Your task to perform on an android device: make emails show in primary in the gmail app Image 0: 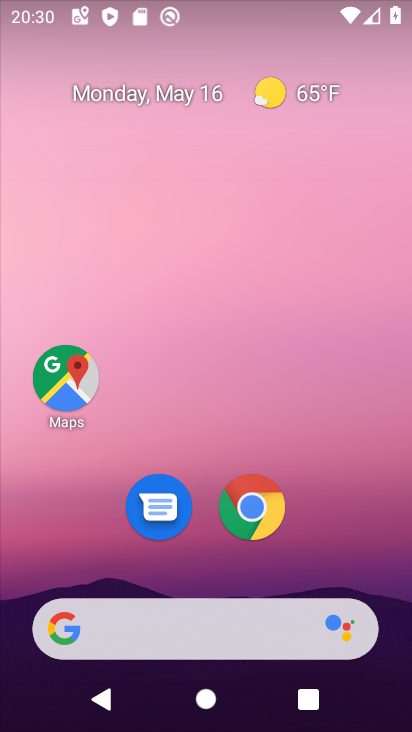
Step 0: drag from (188, 569) to (228, 10)
Your task to perform on an android device: make emails show in primary in the gmail app Image 1: 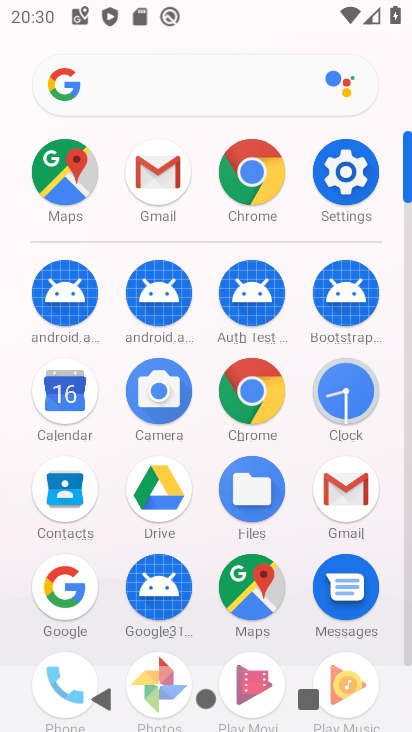
Step 1: click (342, 518)
Your task to perform on an android device: make emails show in primary in the gmail app Image 2: 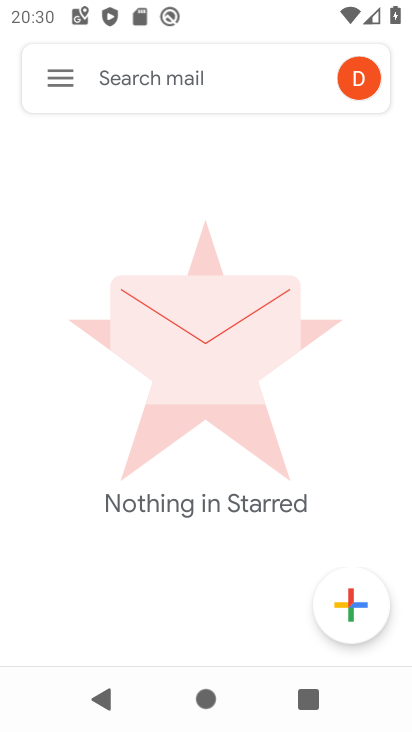
Step 2: click (49, 80)
Your task to perform on an android device: make emails show in primary in the gmail app Image 3: 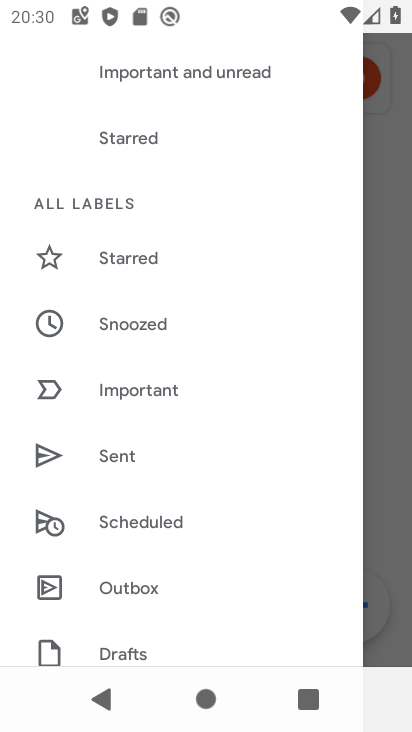
Step 3: drag from (137, 471) to (377, 9)
Your task to perform on an android device: make emails show in primary in the gmail app Image 4: 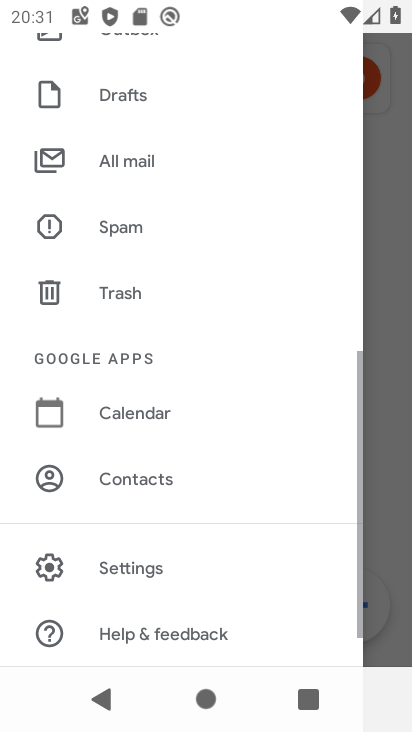
Step 4: click (84, 589)
Your task to perform on an android device: make emails show in primary in the gmail app Image 5: 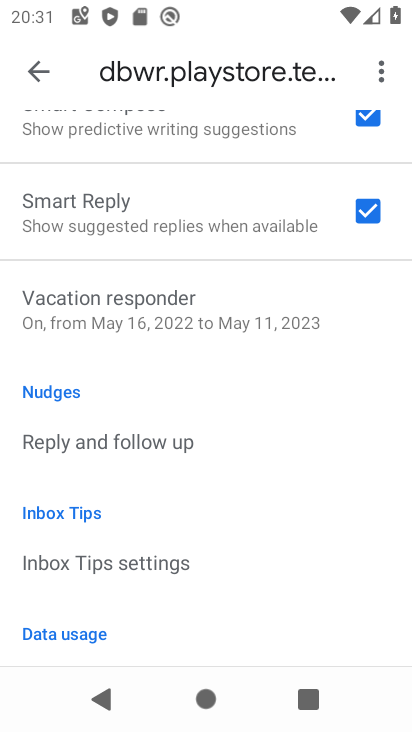
Step 5: drag from (161, 331) to (153, 724)
Your task to perform on an android device: make emails show in primary in the gmail app Image 6: 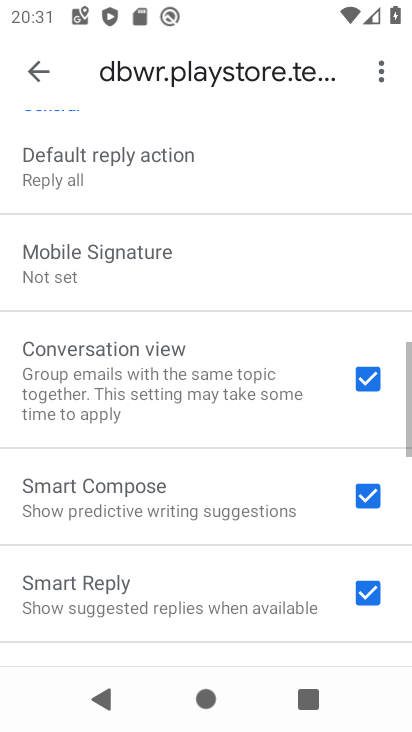
Step 6: click (37, 76)
Your task to perform on an android device: make emails show in primary in the gmail app Image 7: 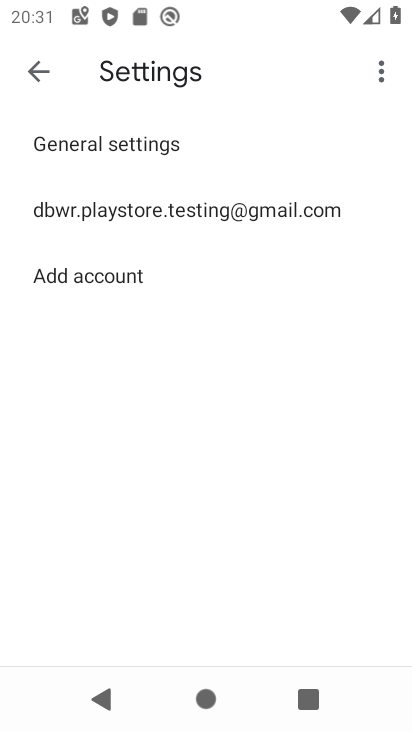
Step 7: click (129, 227)
Your task to perform on an android device: make emails show in primary in the gmail app Image 8: 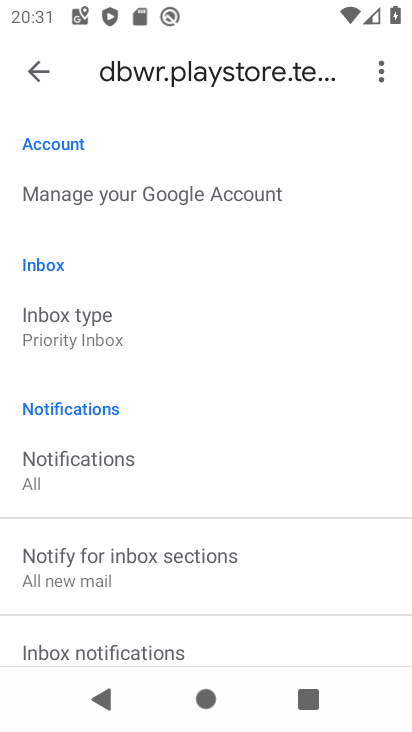
Step 8: click (81, 317)
Your task to perform on an android device: make emails show in primary in the gmail app Image 9: 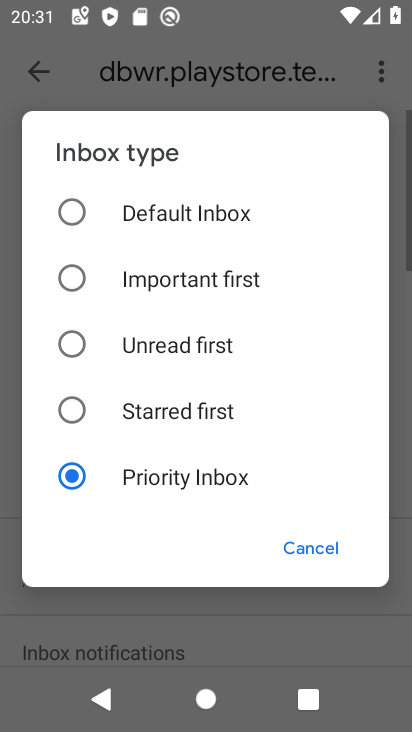
Step 9: click (122, 219)
Your task to perform on an android device: make emails show in primary in the gmail app Image 10: 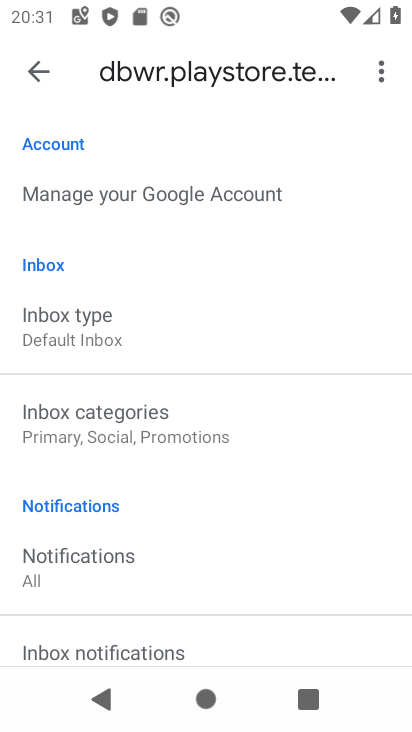
Step 10: click (16, 56)
Your task to perform on an android device: make emails show in primary in the gmail app Image 11: 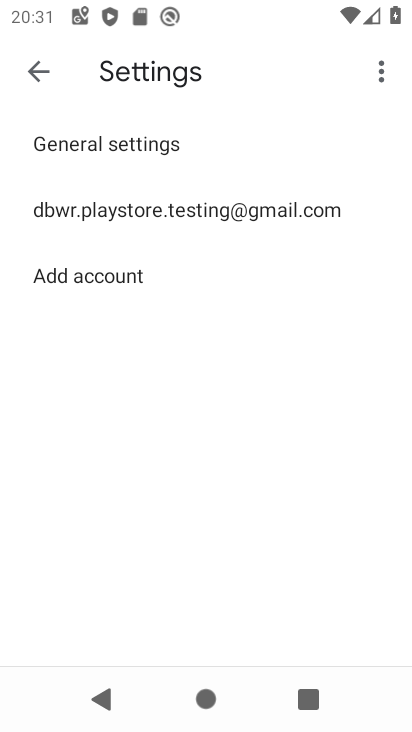
Step 11: click (28, 67)
Your task to perform on an android device: make emails show in primary in the gmail app Image 12: 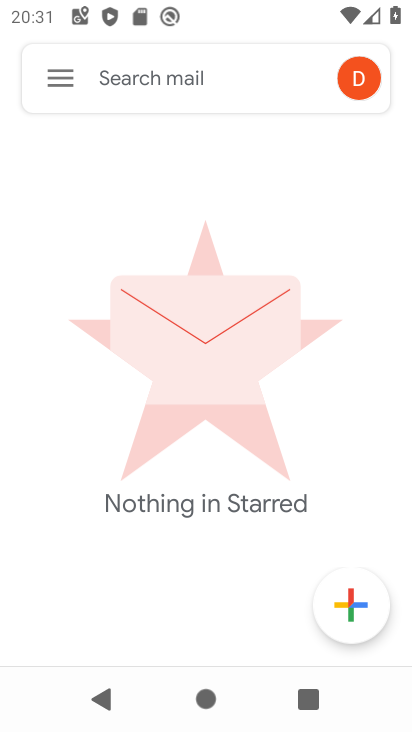
Step 12: drag from (228, 259) to (203, 687)
Your task to perform on an android device: make emails show in primary in the gmail app Image 13: 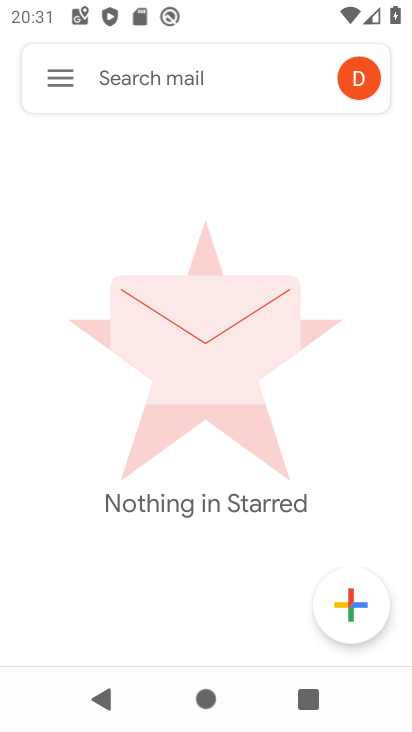
Step 13: click (59, 70)
Your task to perform on an android device: make emails show in primary in the gmail app Image 14: 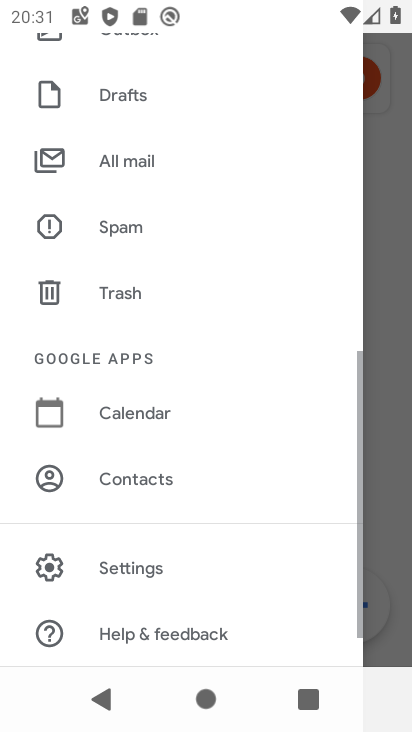
Step 14: drag from (145, 113) to (134, 731)
Your task to perform on an android device: make emails show in primary in the gmail app Image 15: 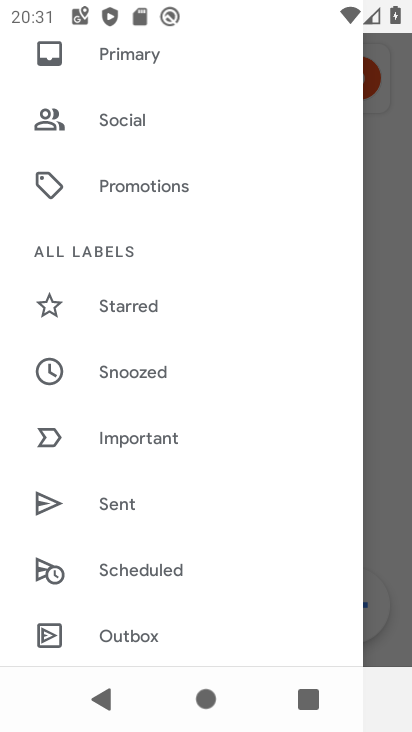
Step 15: click (129, 67)
Your task to perform on an android device: make emails show in primary in the gmail app Image 16: 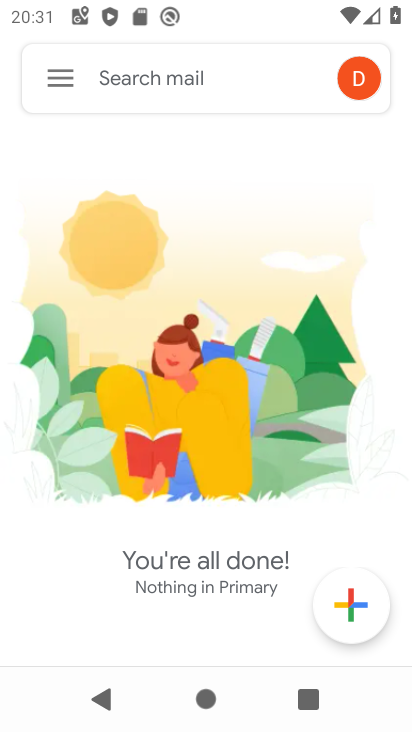
Step 16: task complete